Your task to perform on an android device: Search for Italian restaurants on Maps Image 0: 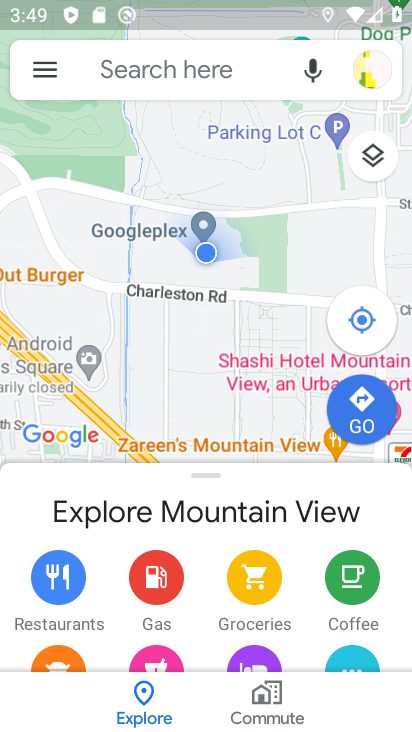
Step 0: click (175, 68)
Your task to perform on an android device: Search for Italian restaurants on Maps Image 1: 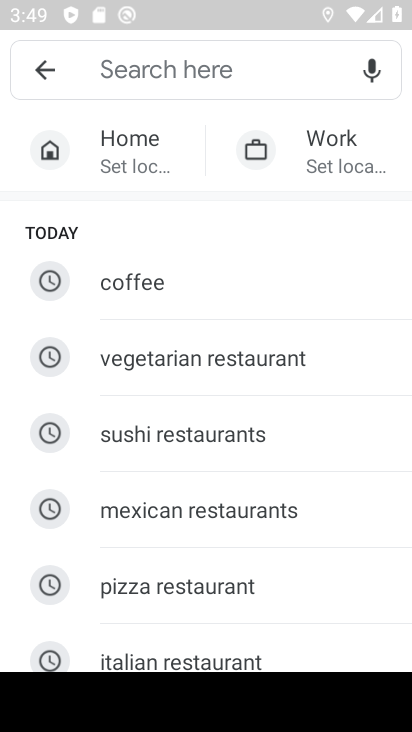
Step 1: click (148, 646)
Your task to perform on an android device: Search for Italian restaurants on Maps Image 2: 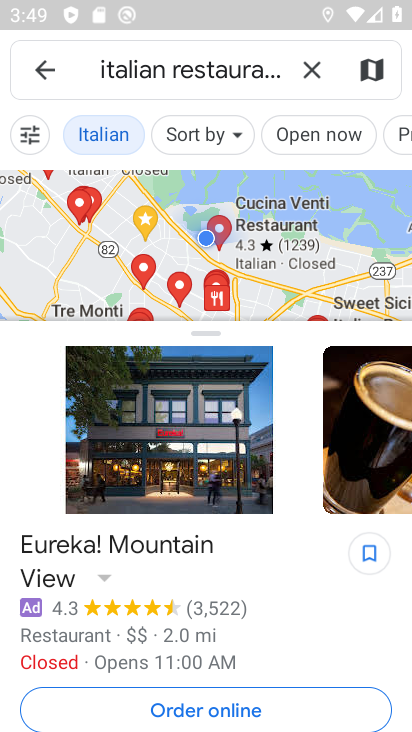
Step 2: task complete